Your task to perform on an android device: set the timer Image 0: 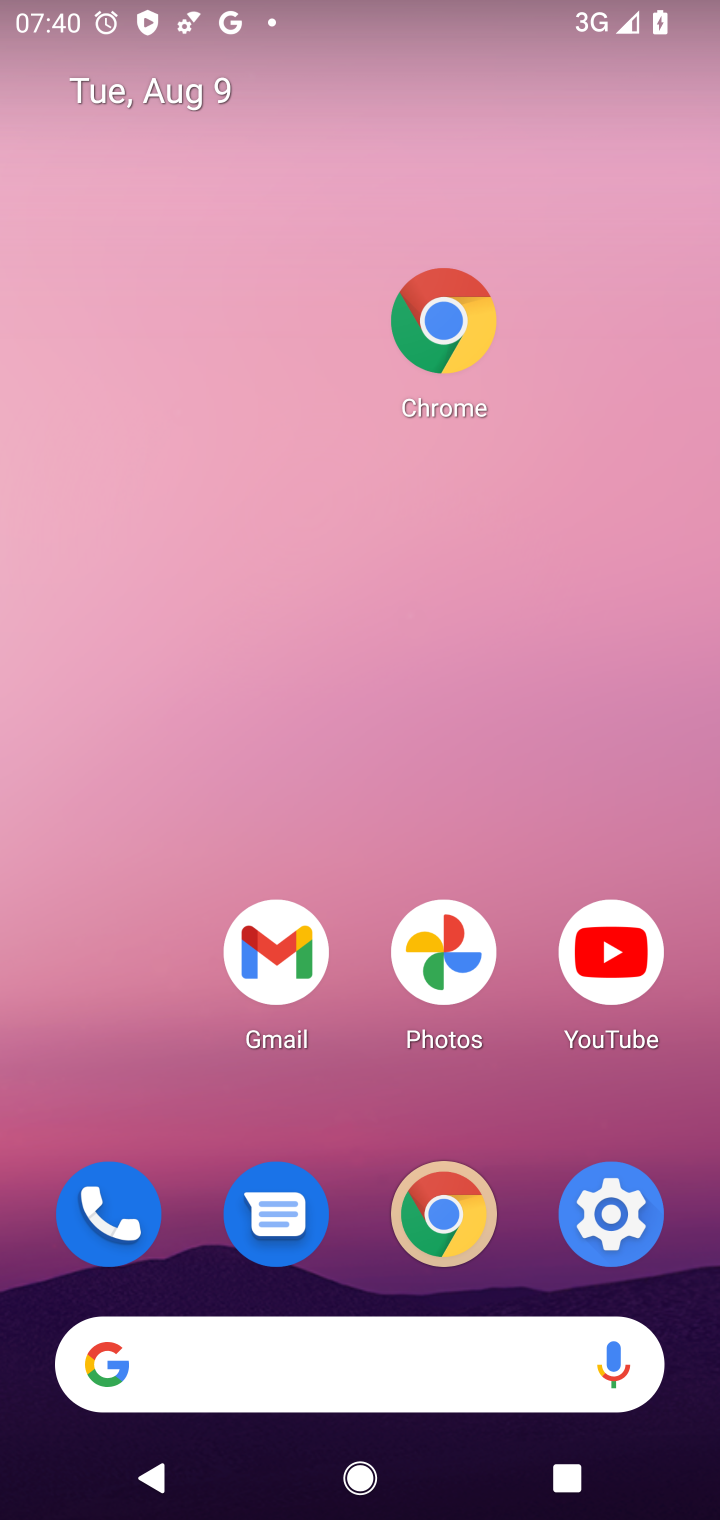
Step 0: drag from (536, 1401) to (172, 395)
Your task to perform on an android device: set the timer Image 1: 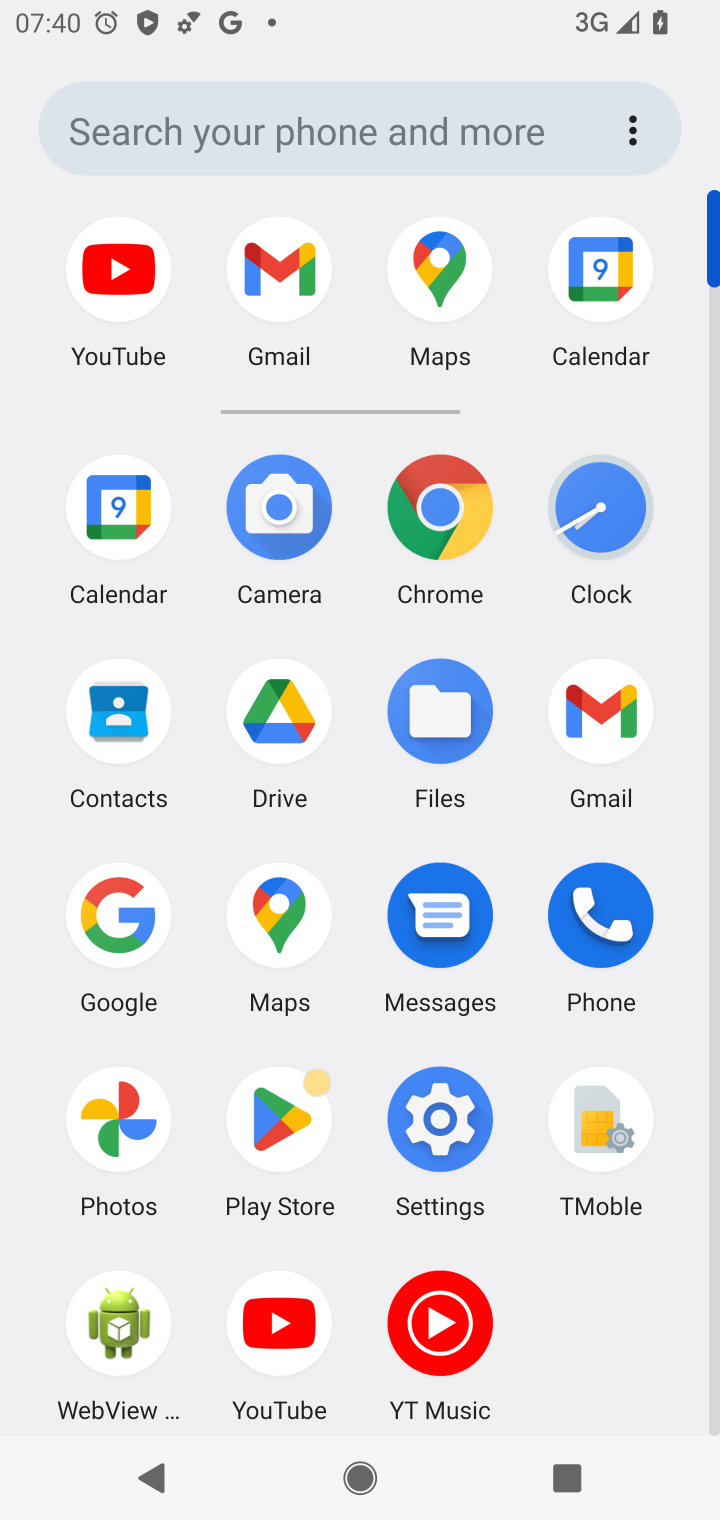
Step 1: click (585, 497)
Your task to perform on an android device: set the timer Image 2: 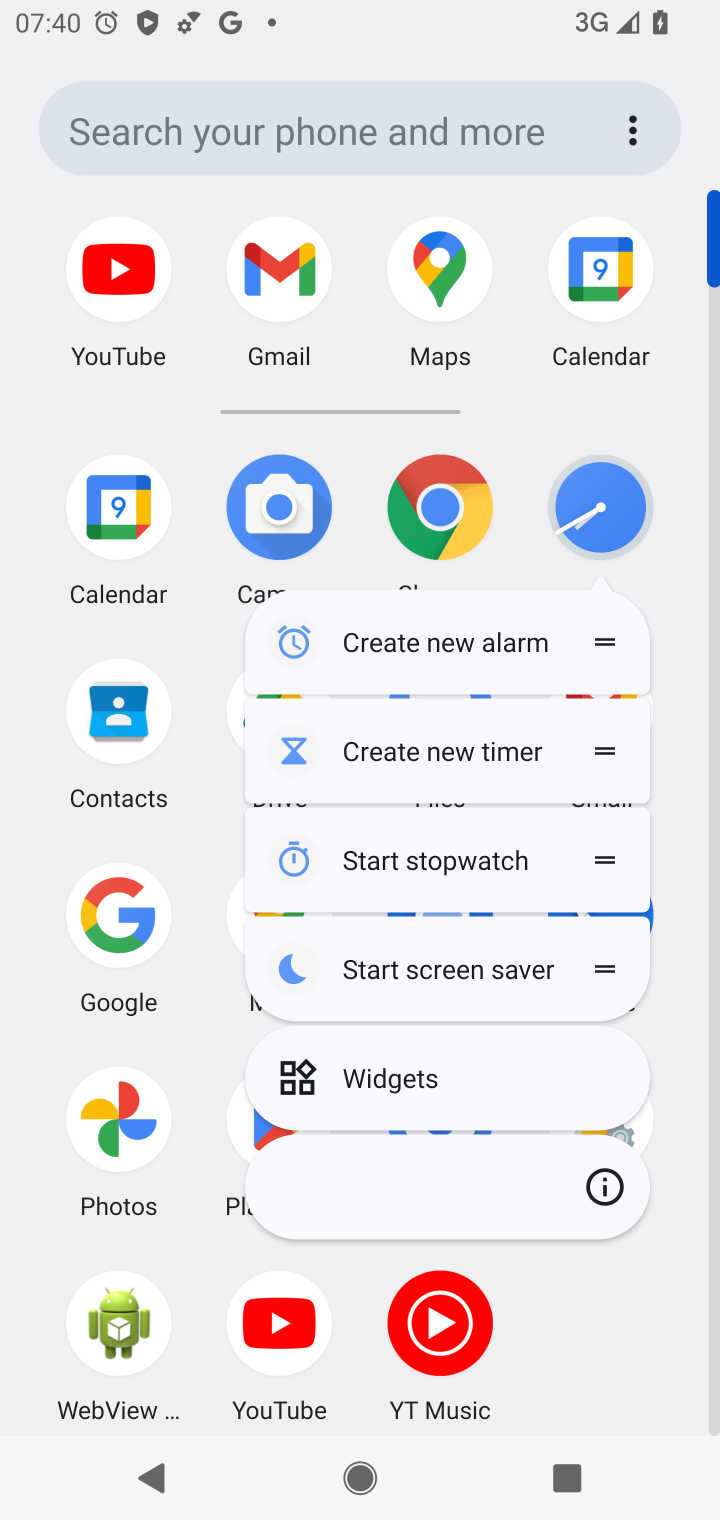
Step 2: click (590, 516)
Your task to perform on an android device: set the timer Image 3: 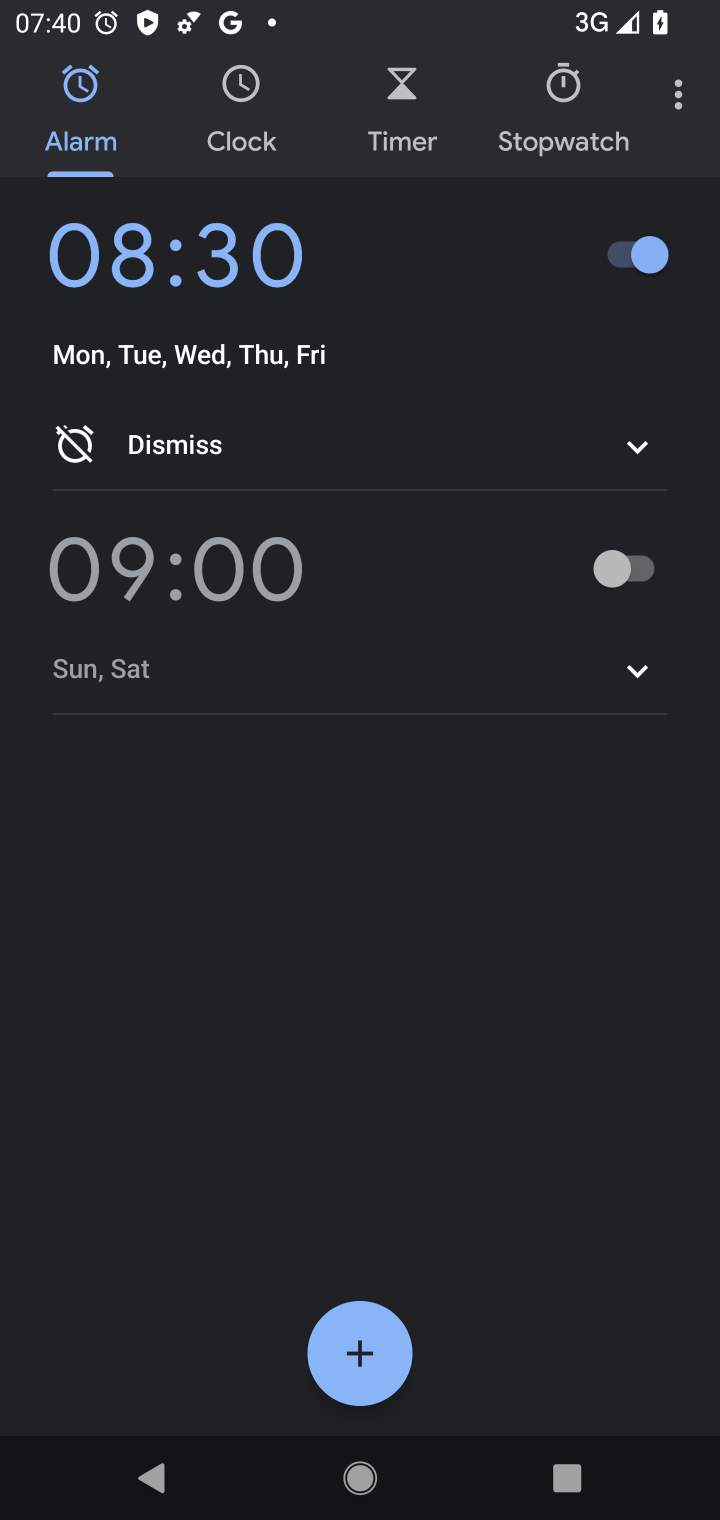
Step 3: click (680, 105)
Your task to perform on an android device: set the timer Image 4: 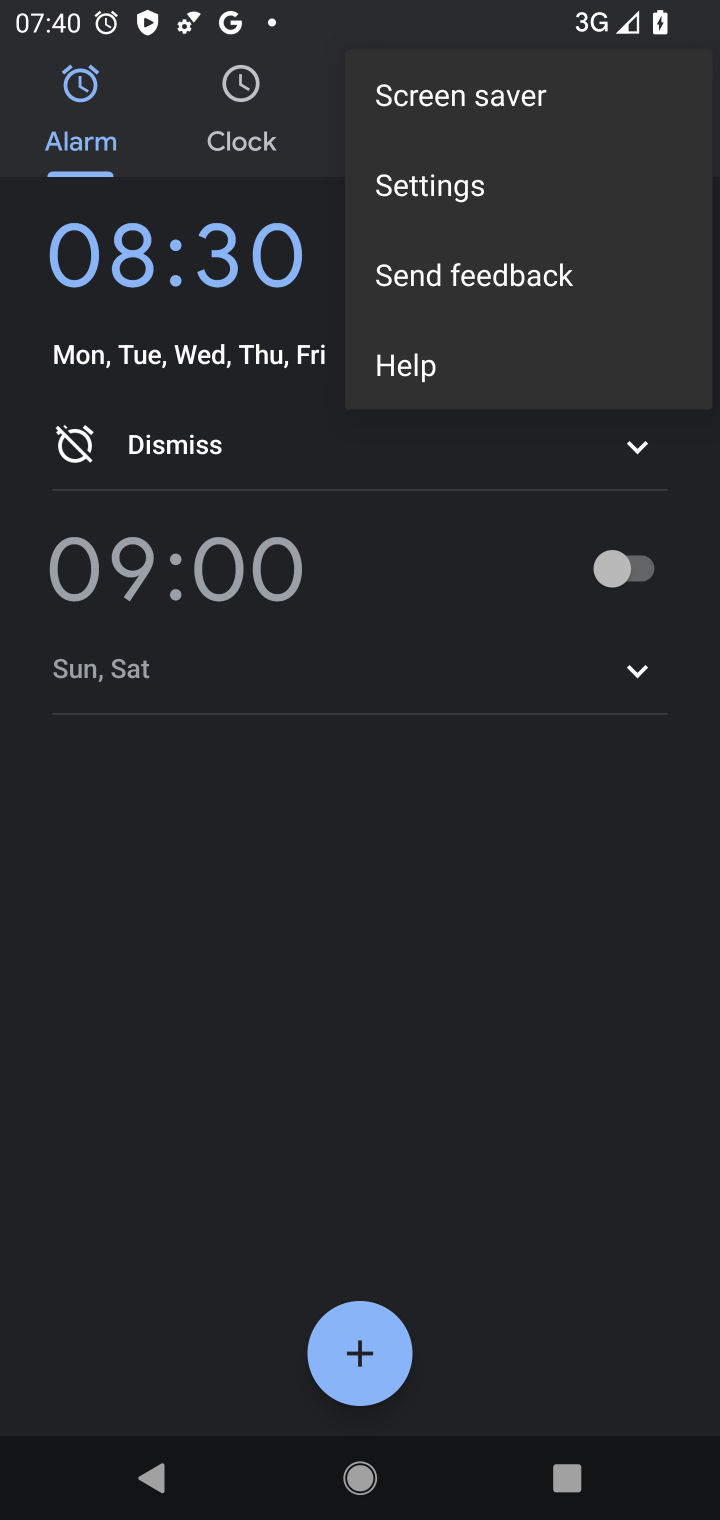
Step 4: click (475, 188)
Your task to perform on an android device: set the timer Image 5: 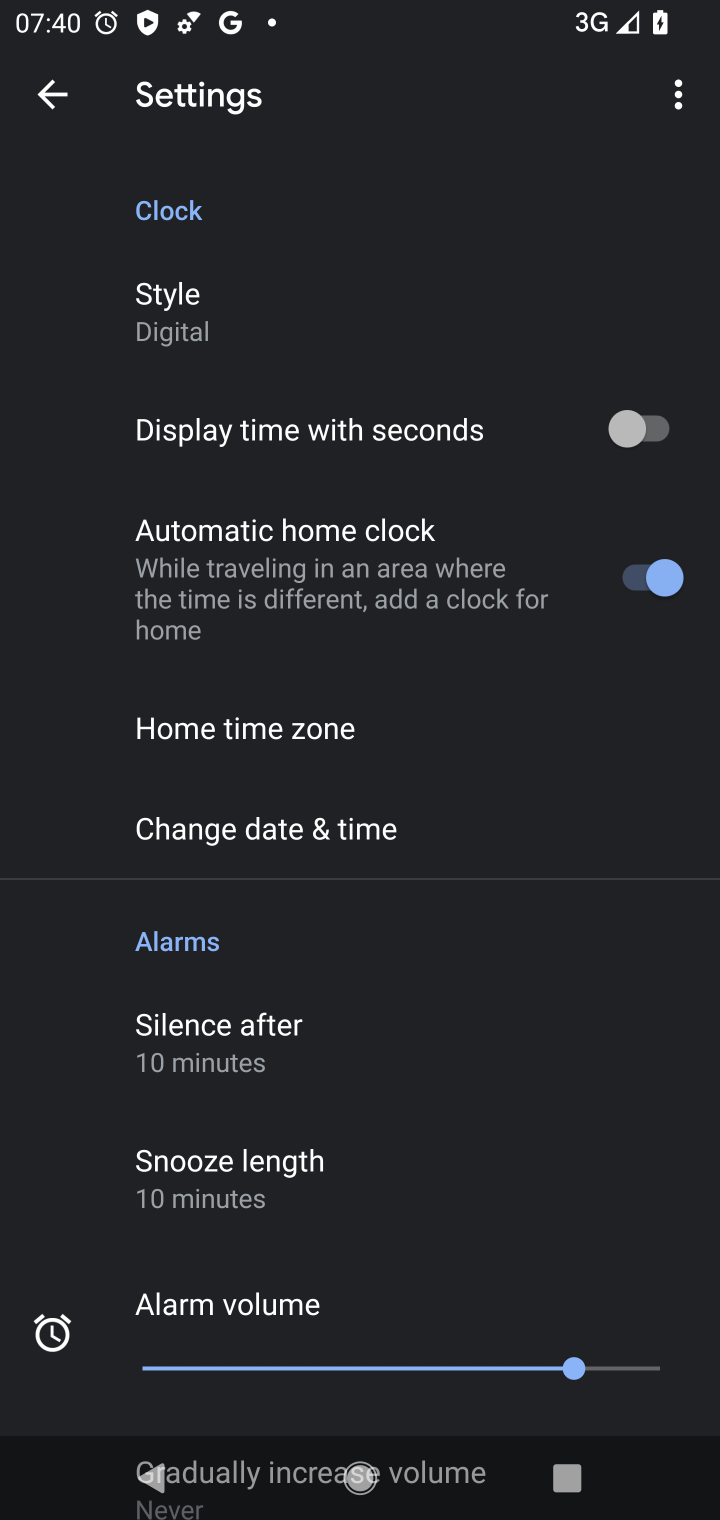
Step 5: drag from (383, 1186) to (413, 744)
Your task to perform on an android device: set the timer Image 6: 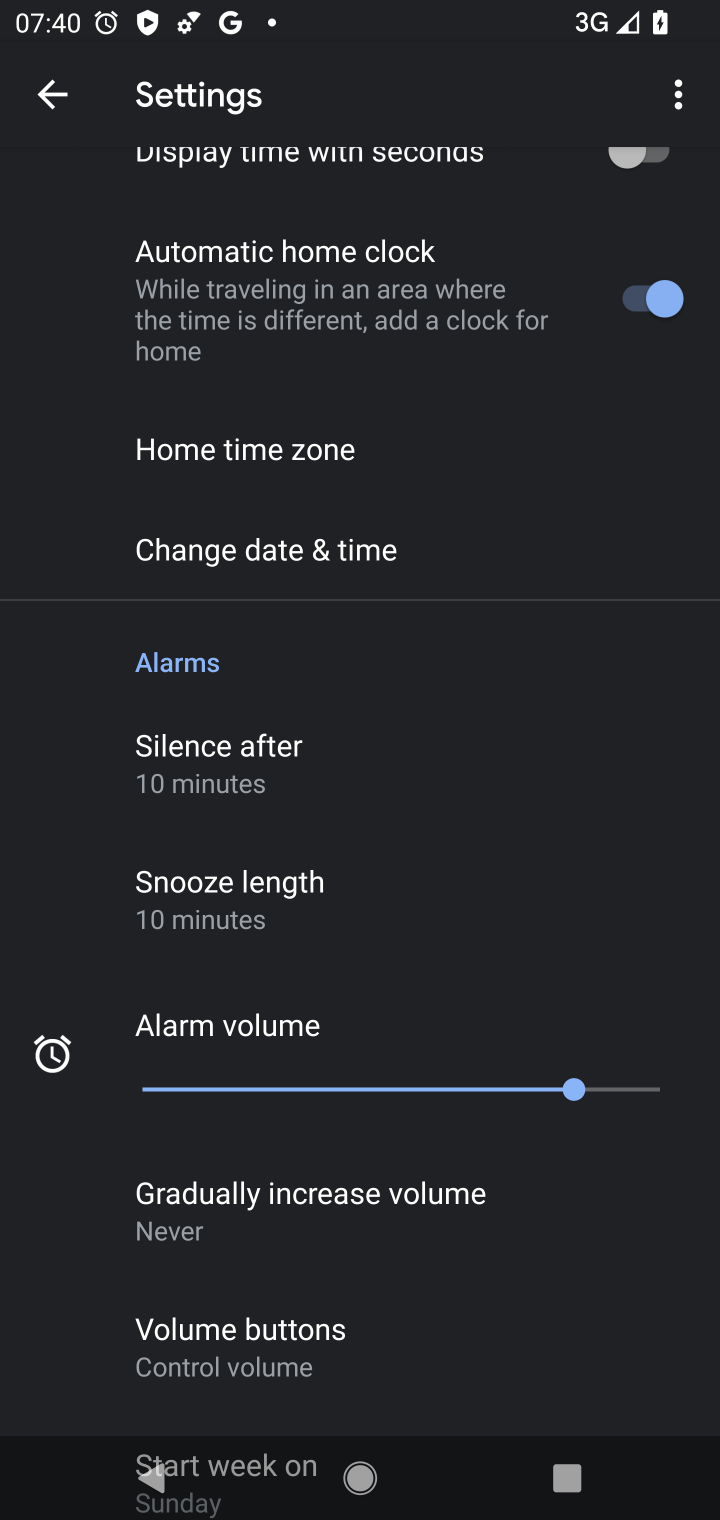
Step 6: drag from (309, 1254) to (294, 900)
Your task to perform on an android device: set the timer Image 7: 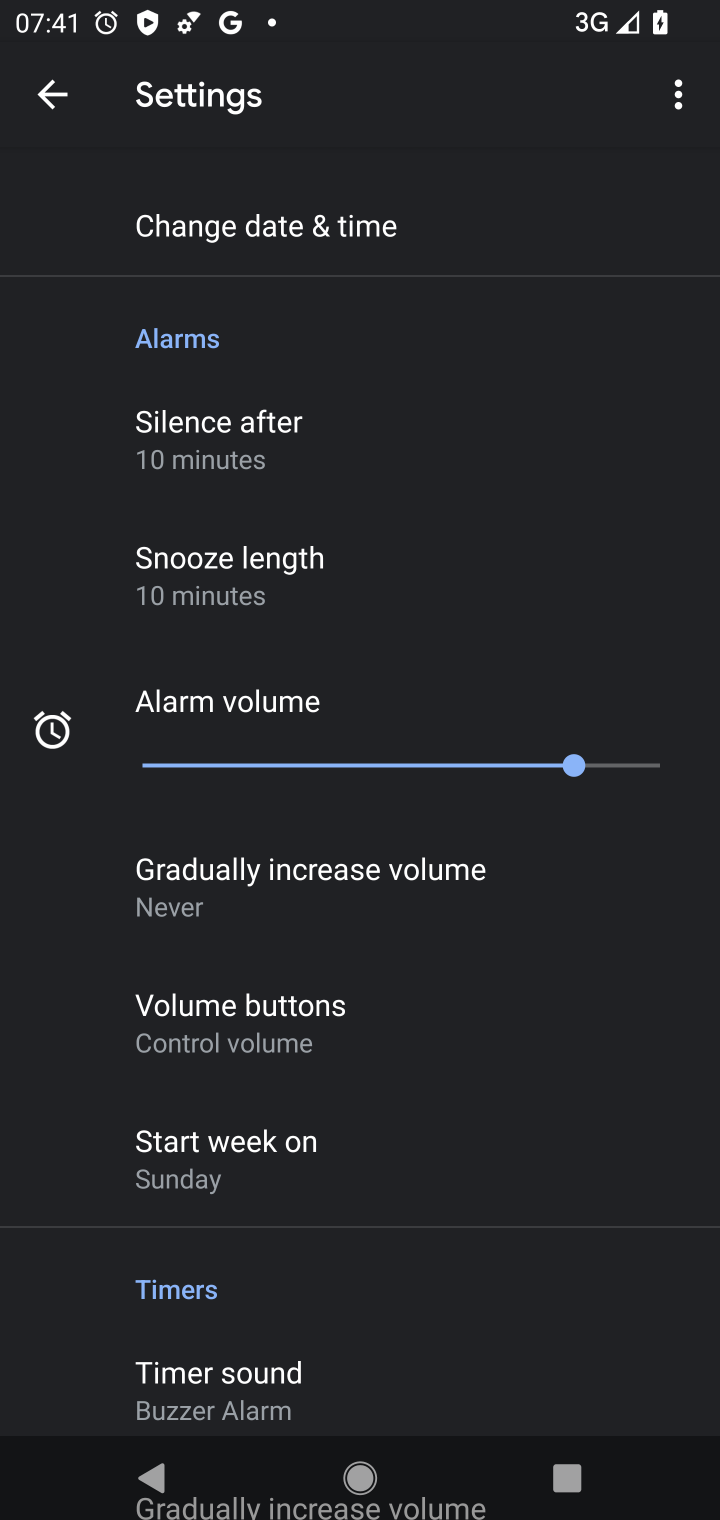
Step 7: click (67, 129)
Your task to perform on an android device: set the timer Image 8: 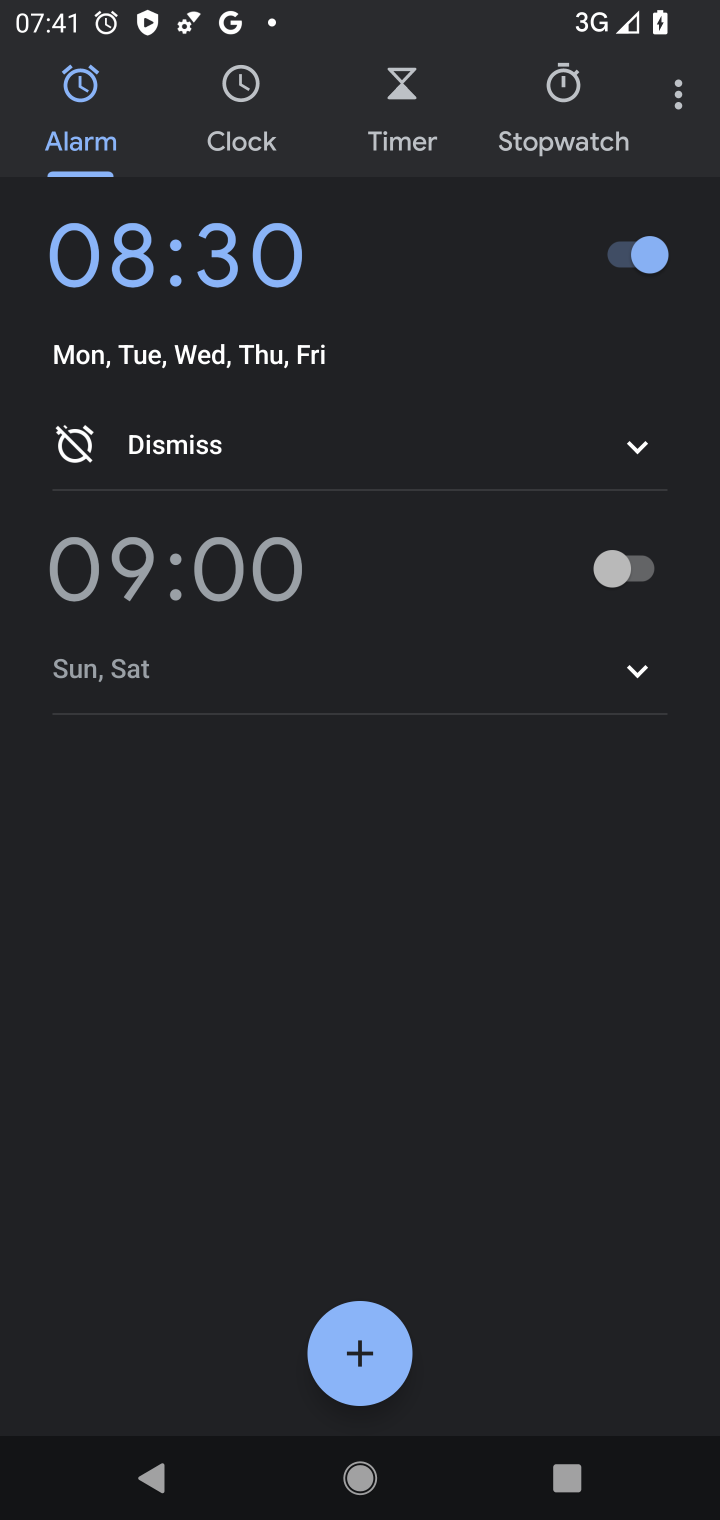
Step 8: click (67, 129)
Your task to perform on an android device: set the timer Image 9: 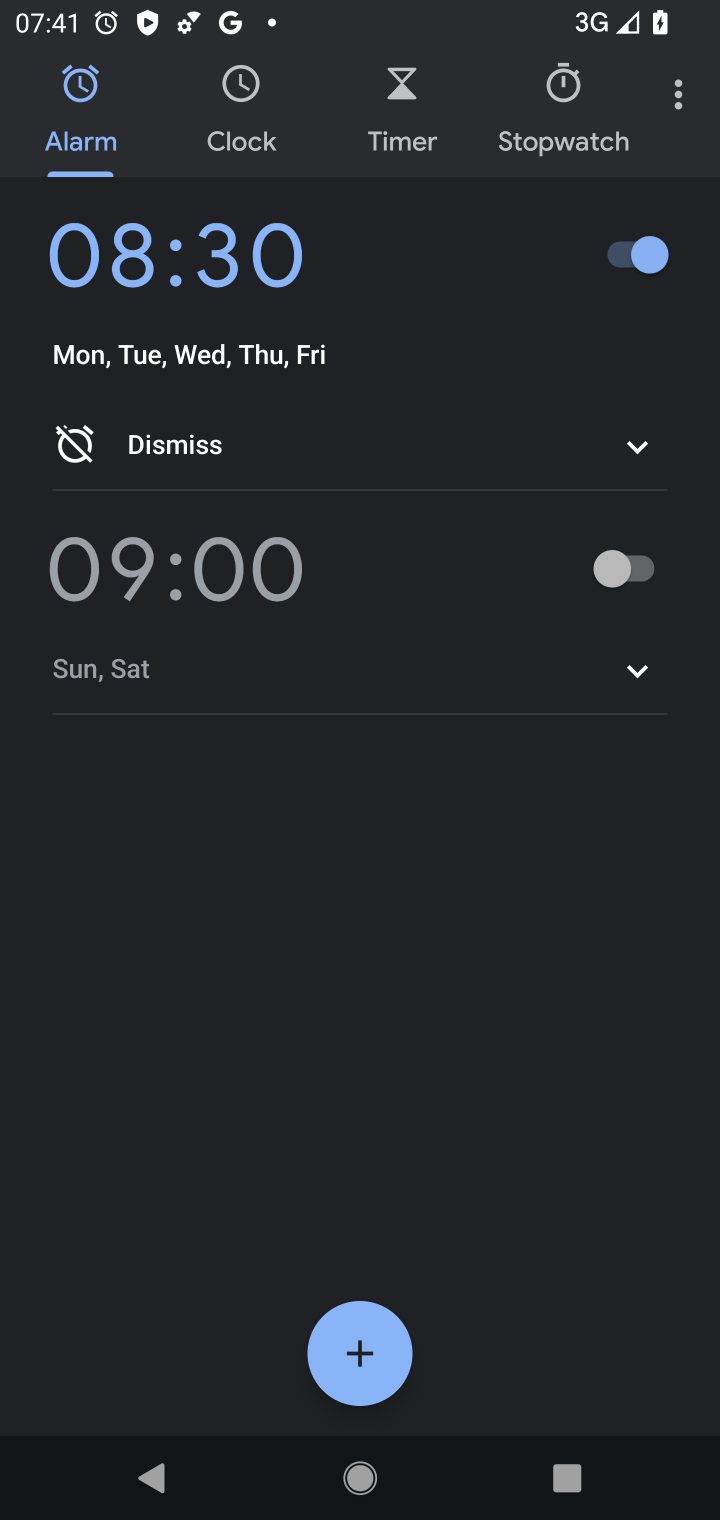
Step 9: click (399, 128)
Your task to perform on an android device: set the timer Image 10: 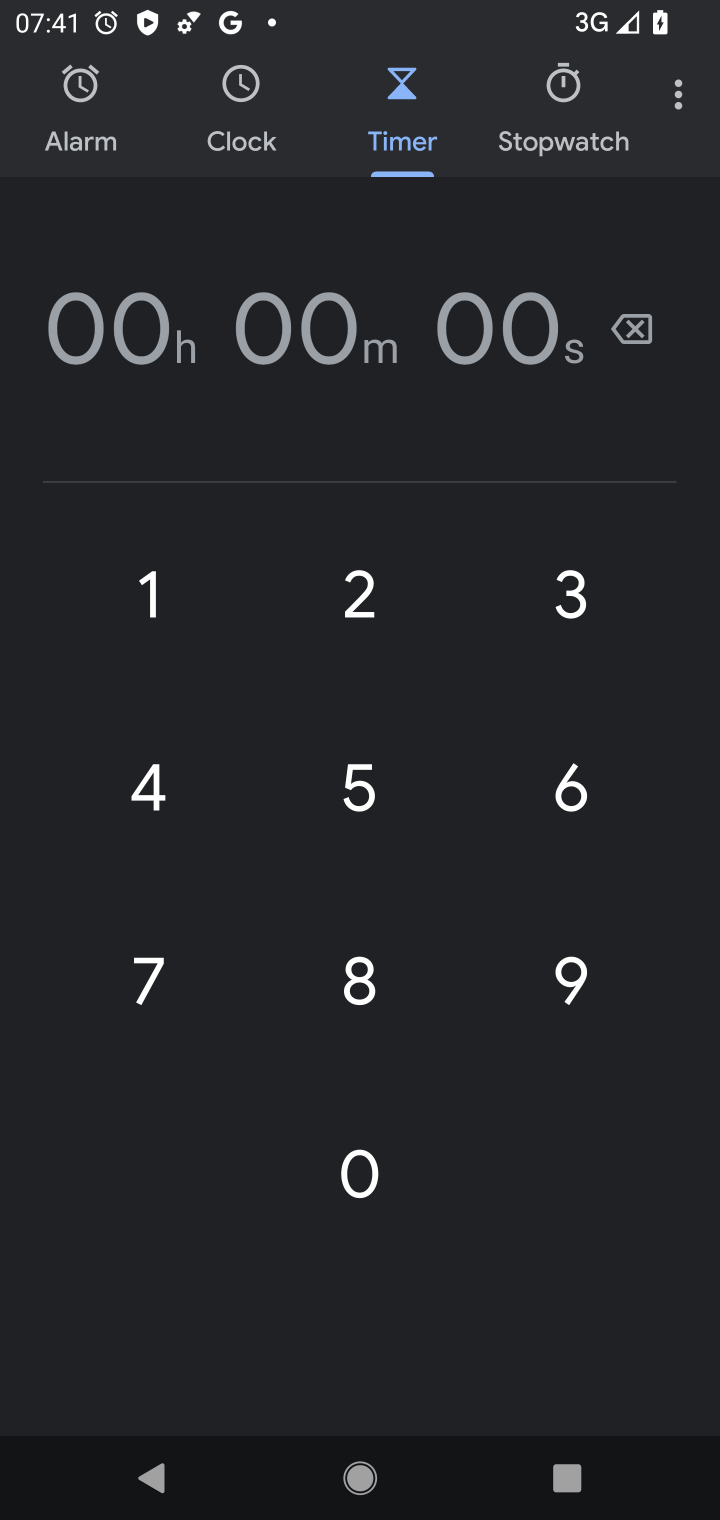
Step 10: click (334, 774)
Your task to perform on an android device: set the timer Image 11: 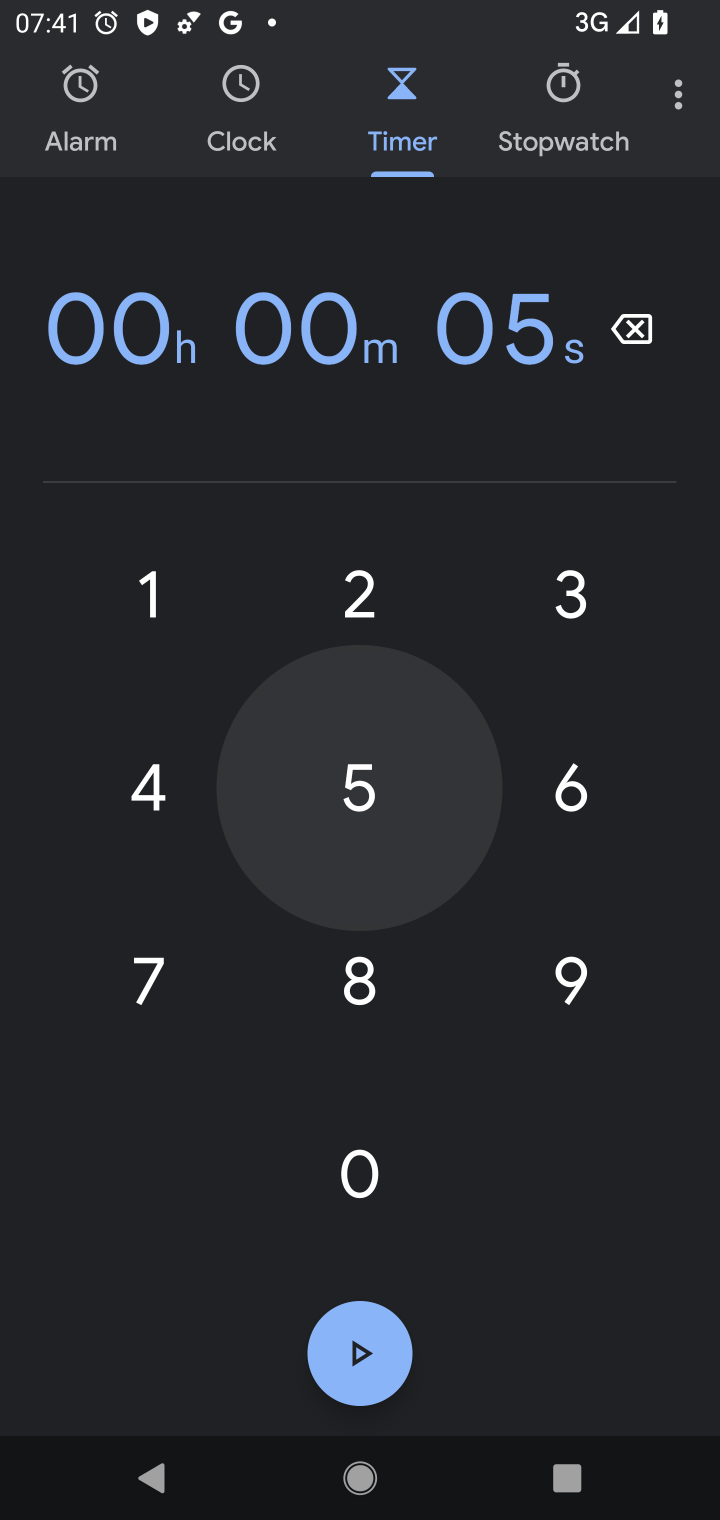
Step 11: click (352, 671)
Your task to perform on an android device: set the timer Image 12: 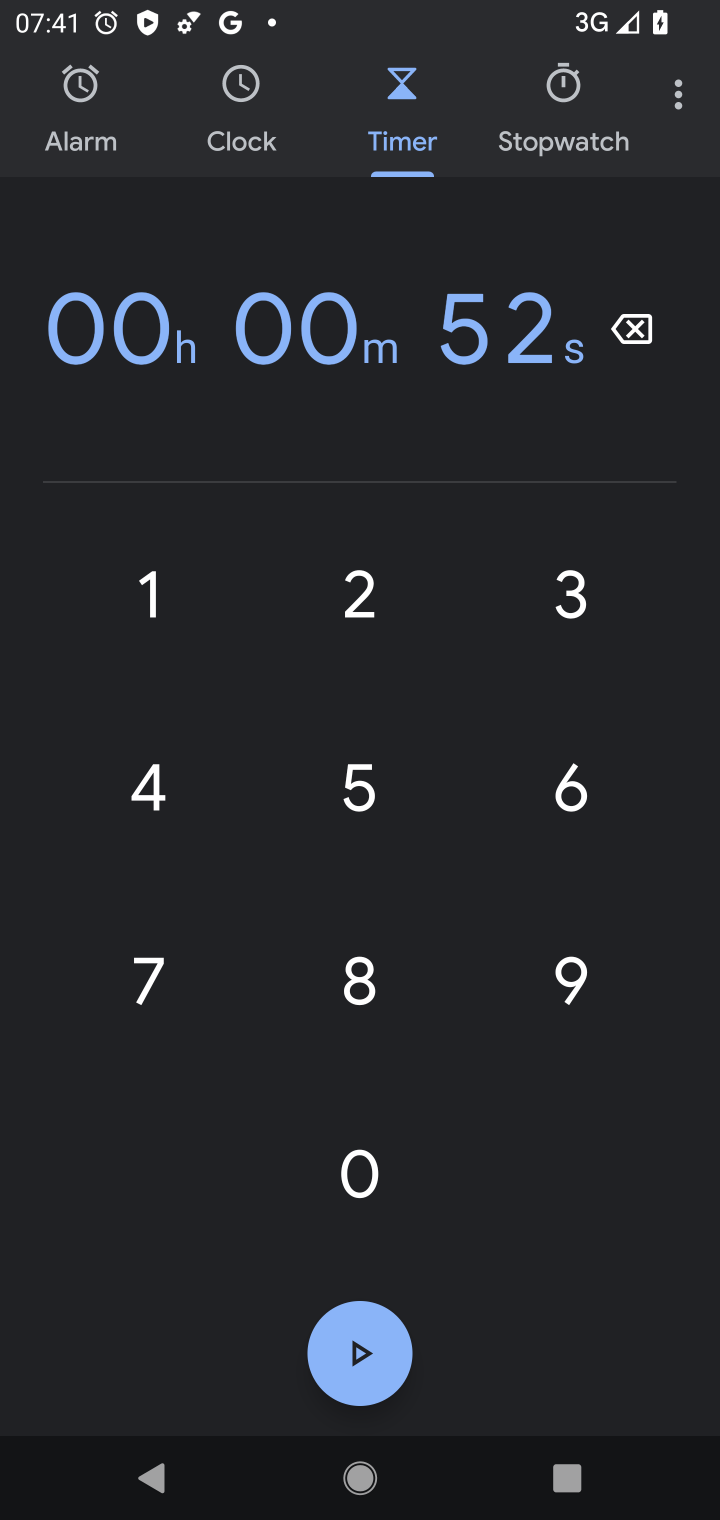
Step 12: click (575, 841)
Your task to perform on an android device: set the timer Image 13: 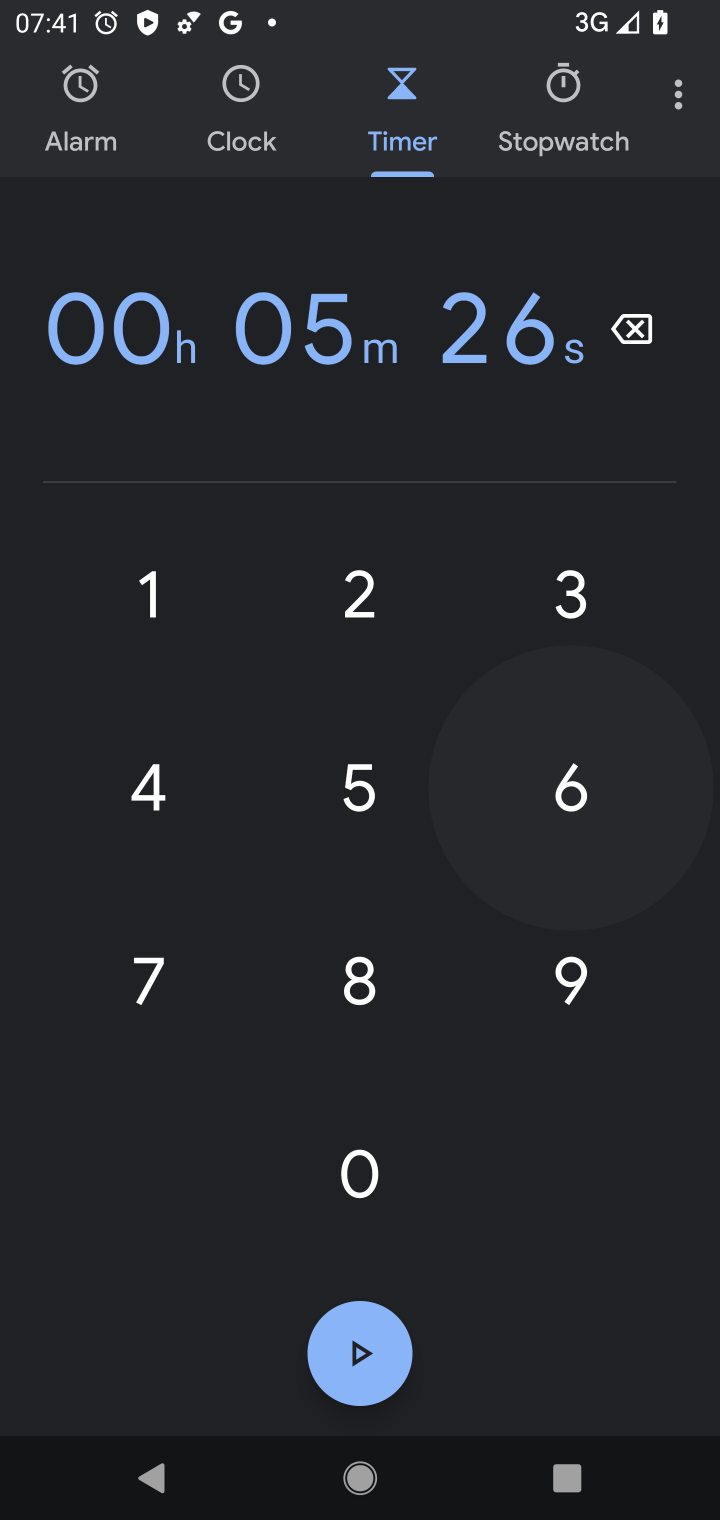
Step 13: click (523, 605)
Your task to perform on an android device: set the timer Image 14: 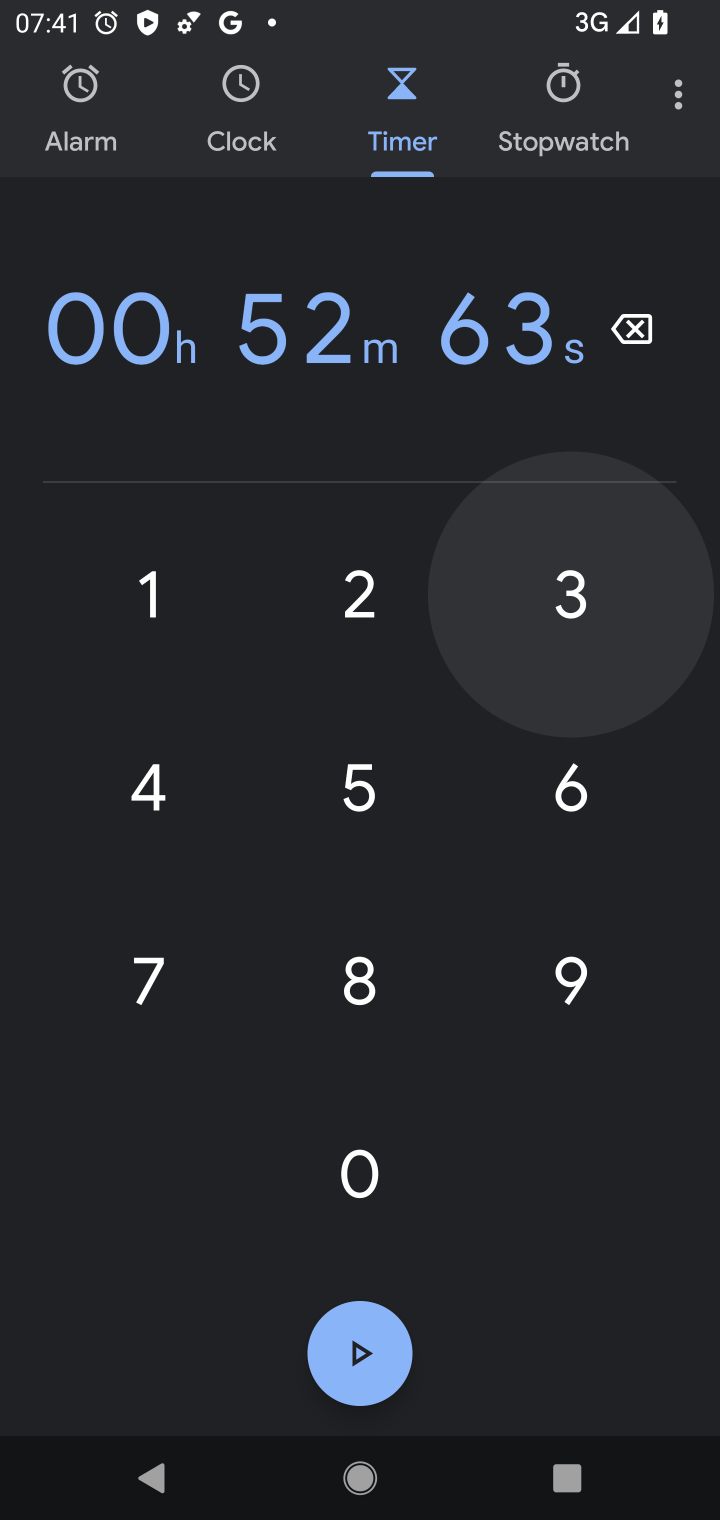
Step 14: click (171, 563)
Your task to perform on an android device: set the timer Image 15: 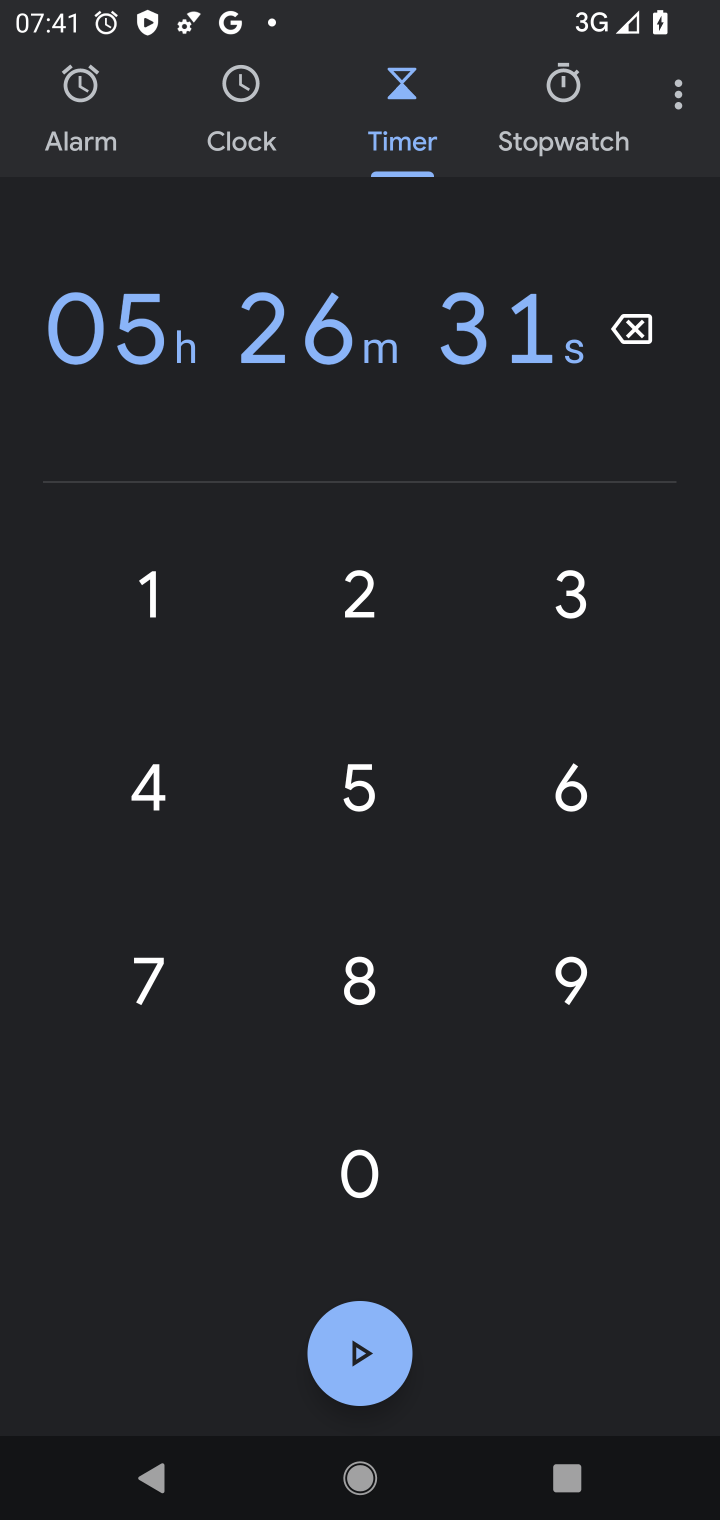
Step 15: task complete